Your task to perform on an android device: change the upload size in google photos Image 0: 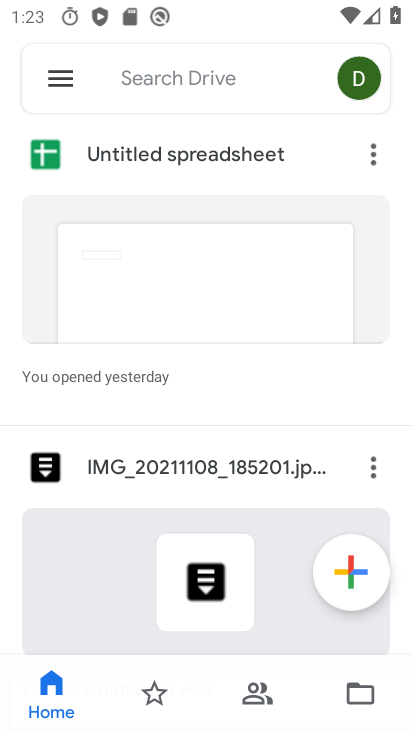
Step 0: press home button
Your task to perform on an android device: change the upload size in google photos Image 1: 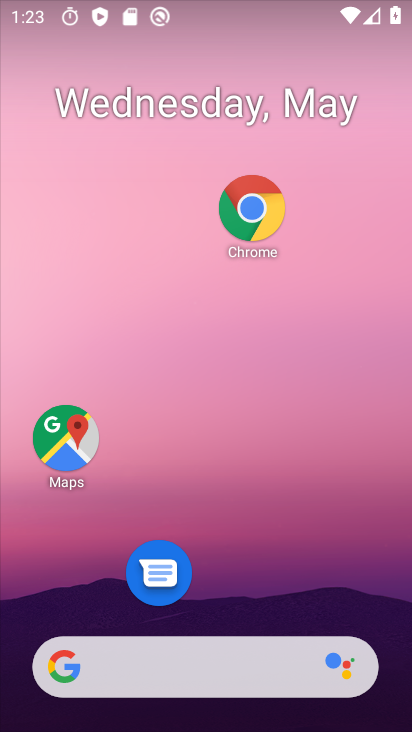
Step 1: drag from (246, 608) to (205, 108)
Your task to perform on an android device: change the upload size in google photos Image 2: 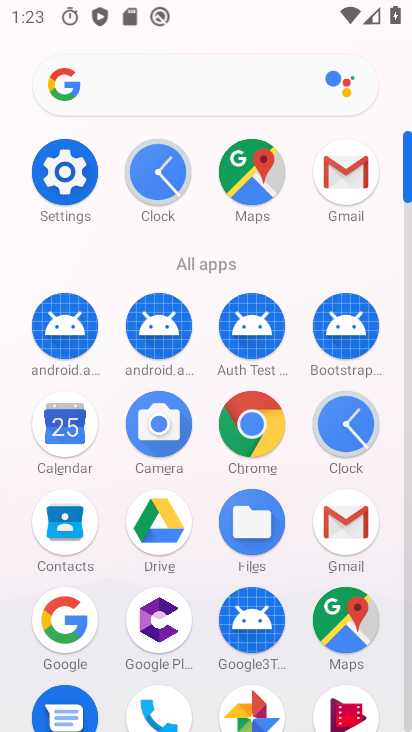
Step 2: click (248, 720)
Your task to perform on an android device: change the upload size in google photos Image 3: 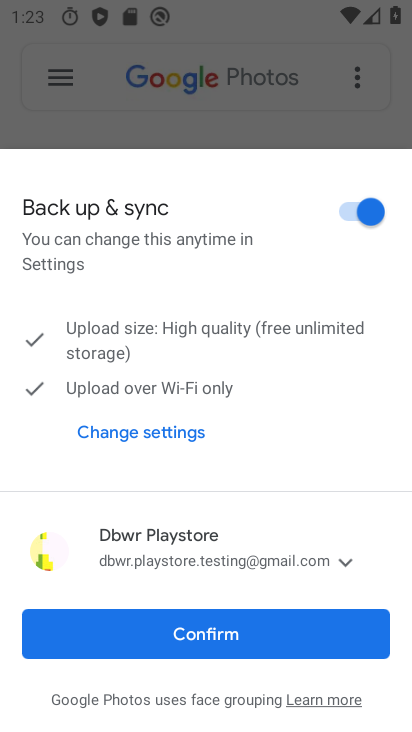
Step 3: click (281, 608)
Your task to perform on an android device: change the upload size in google photos Image 4: 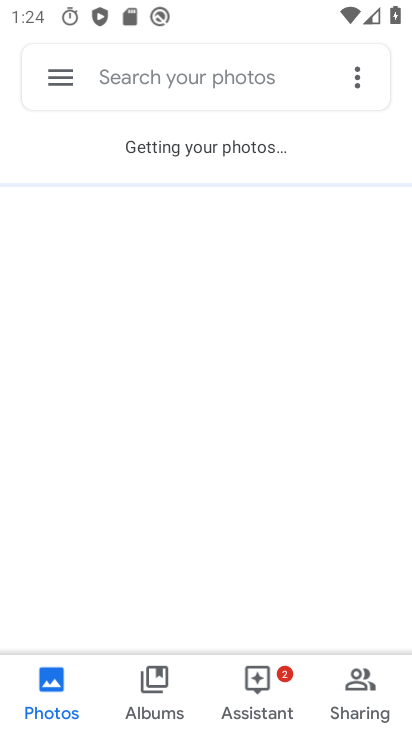
Step 4: click (58, 88)
Your task to perform on an android device: change the upload size in google photos Image 5: 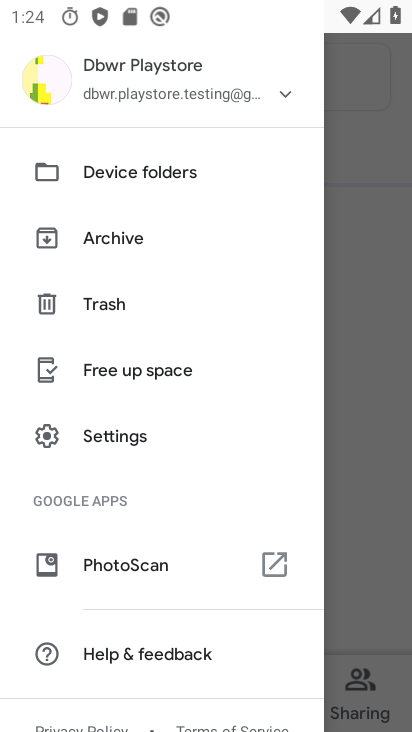
Step 5: click (97, 455)
Your task to perform on an android device: change the upload size in google photos Image 6: 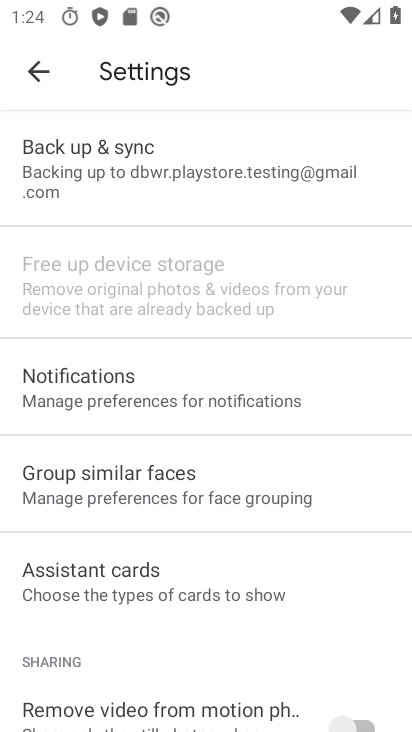
Step 6: click (132, 154)
Your task to perform on an android device: change the upload size in google photos Image 7: 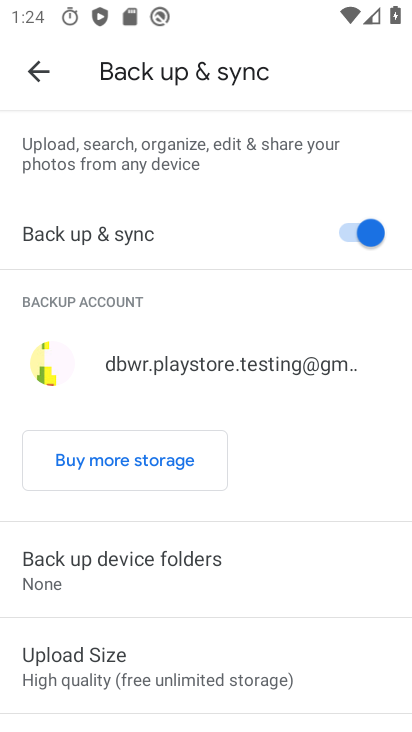
Step 7: click (152, 662)
Your task to perform on an android device: change the upload size in google photos Image 8: 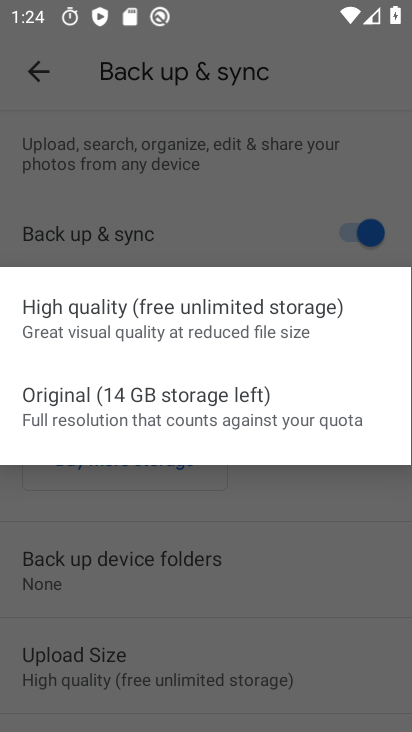
Step 8: click (136, 426)
Your task to perform on an android device: change the upload size in google photos Image 9: 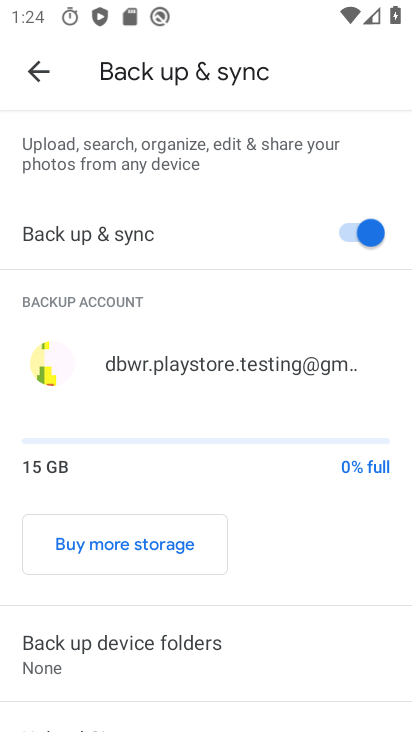
Step 9: task complete